Your task to perform on an android device: check battery use Image 0: 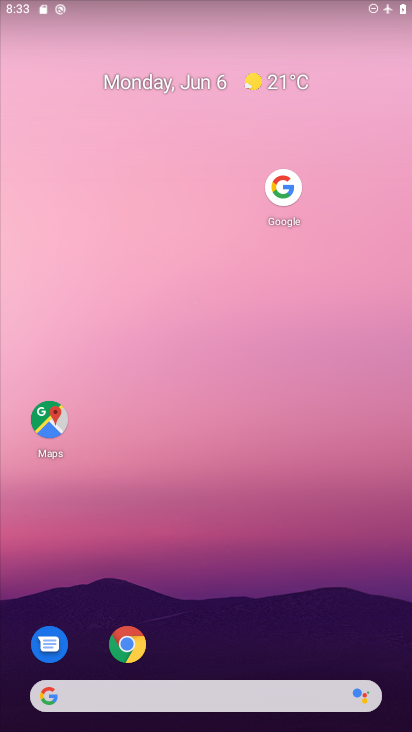
Step 0: drag from (234, 667) to (189, 411)
Your task to perform on an android device: check battery use Image 1: 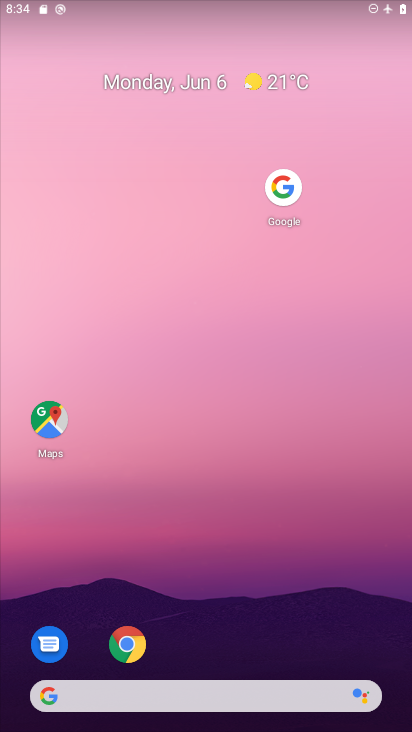
Step 1: drag from (252, 637) to (168, 0)
Your task to perform on an android device: check battery use Image 2: 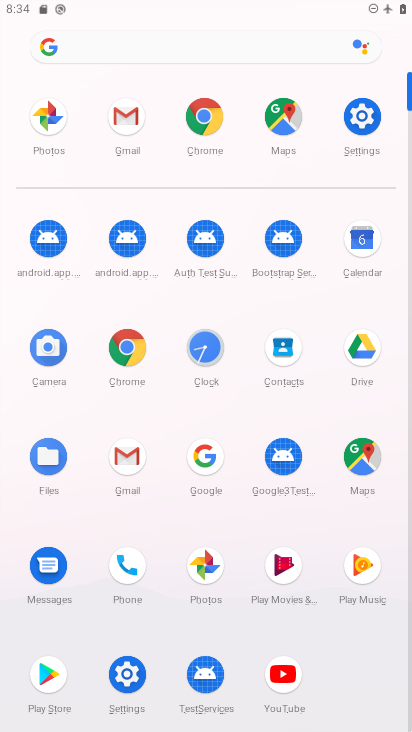
Step 2: click (365, 146)
Your task to perform on an android device: check battery use Image 3: 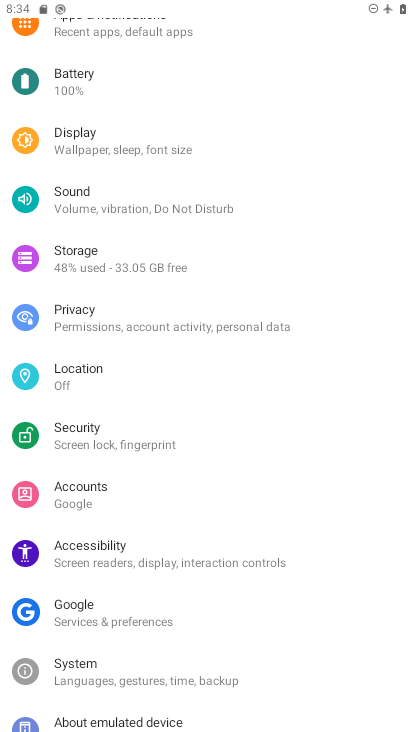
Step 3: click (59, 89)
Your task to perform on an android device: check battery use Image 4: 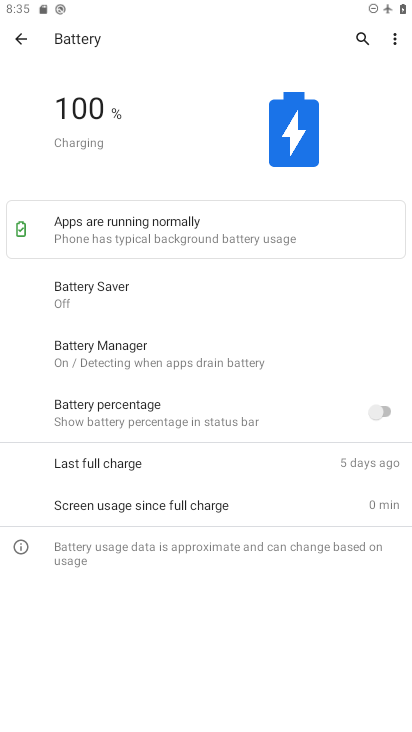
Step 4: task complete